Your task to perform on an android device: Open CNN.com Image 0: 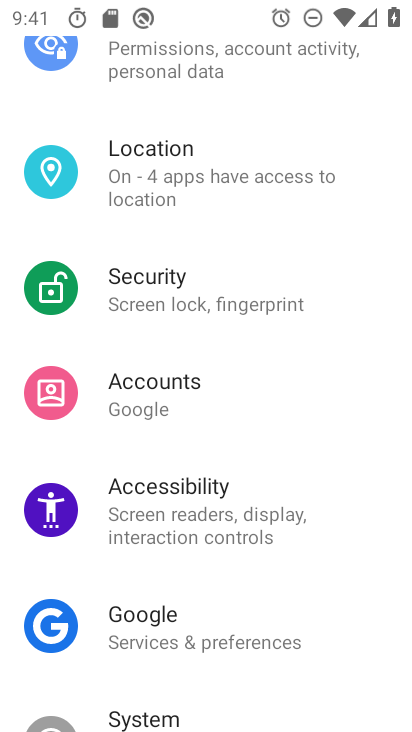
Step 0: press home button
Your task to perform on an android device: Open CNN.com Image 1: 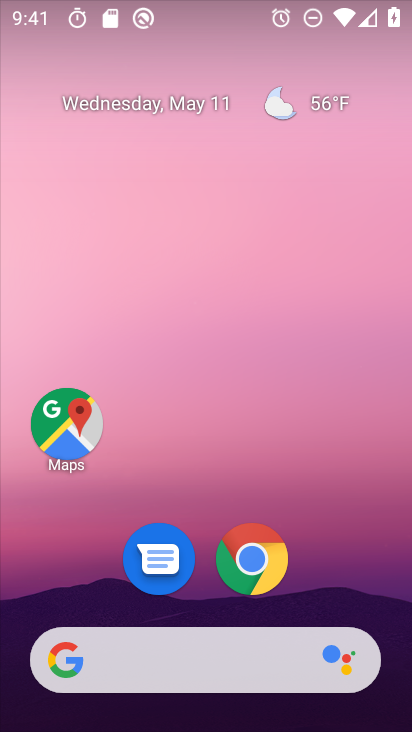
Step 1: click (204, 657)
Your task to perform on an android device: Open CNN.com Image 2: 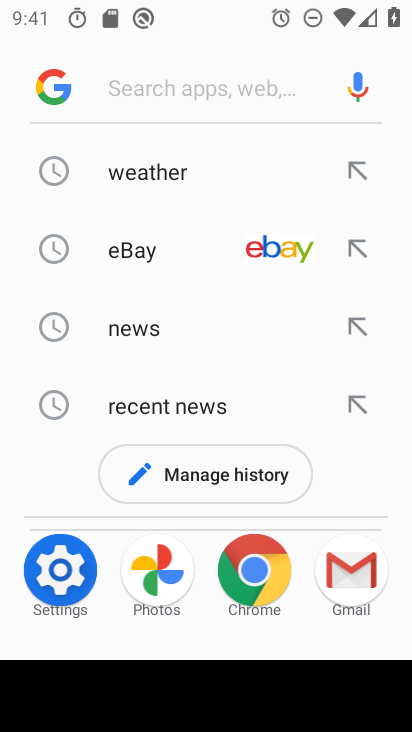
Step 2: type "CNN.com"
Your task to perform on an android device: Open CNN.com Image 3: 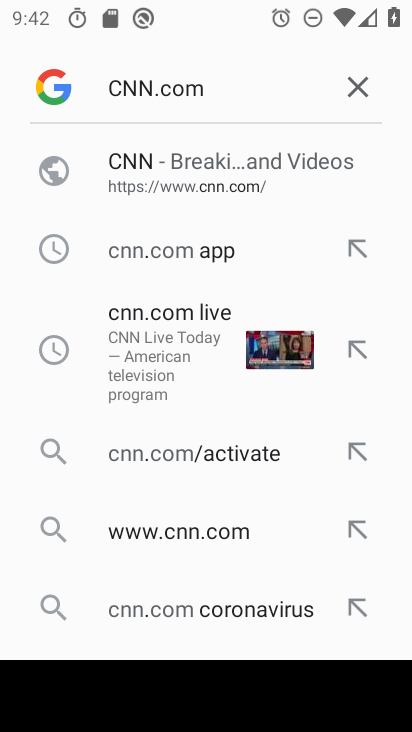
Step 3: click (167, 540)
Your task to perform on an android device: Open CNN.com Image 4: 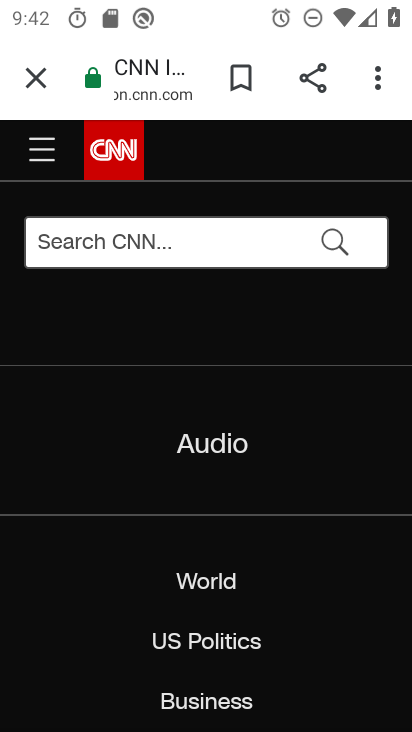
Step 4: task complete